Your task to perform on an android device: Search for sushi restaurants on Maps Image 0: 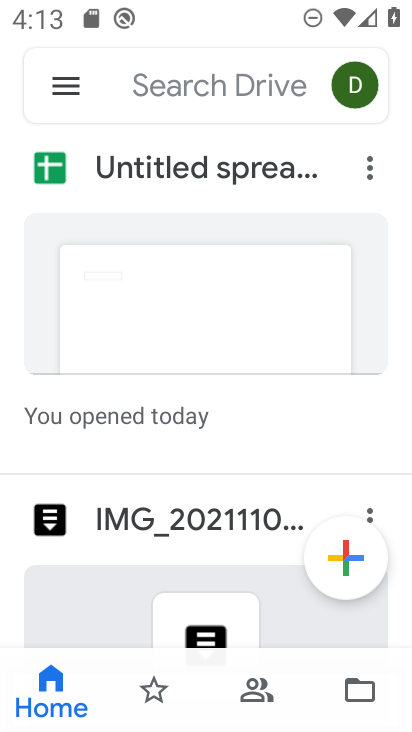
Step 0: press home button
Your task to perform on an android device: Search for sushi restaurants on Maps Image 1: 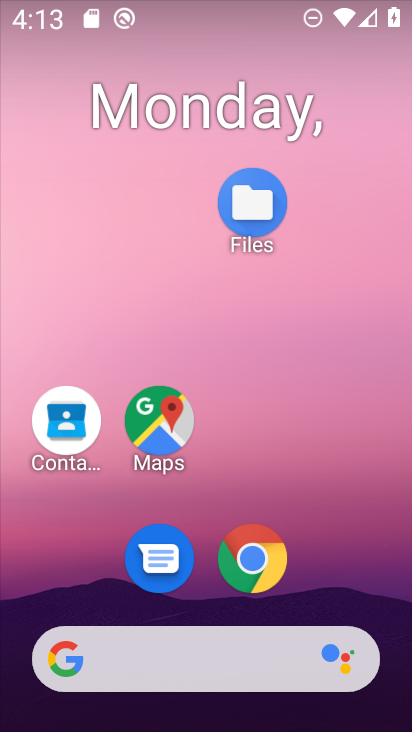
Step 1: drag from (266, 627) to (301, 117)
Your task to perform on an android device: Search for sushi restaurants on Maps Image 2: 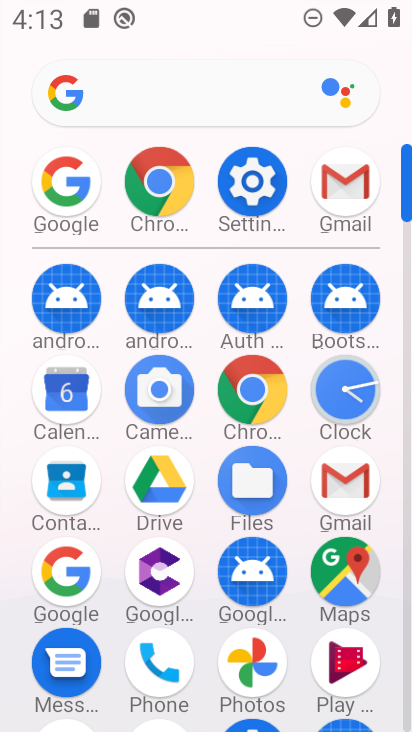
Step 2: click (364, 573)
Your task to perform on an android device: Search for sushi restaurants on Maps Image 3: 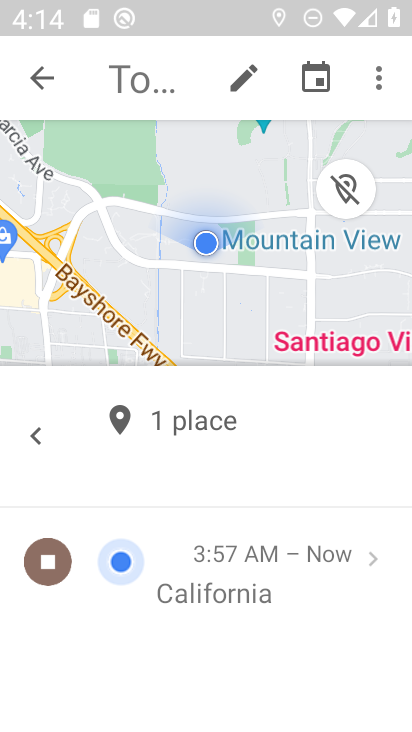
Step 3: click (51, 69)
Your task to perform on an android device: Search for sushi restaurants on Maps Image 4: 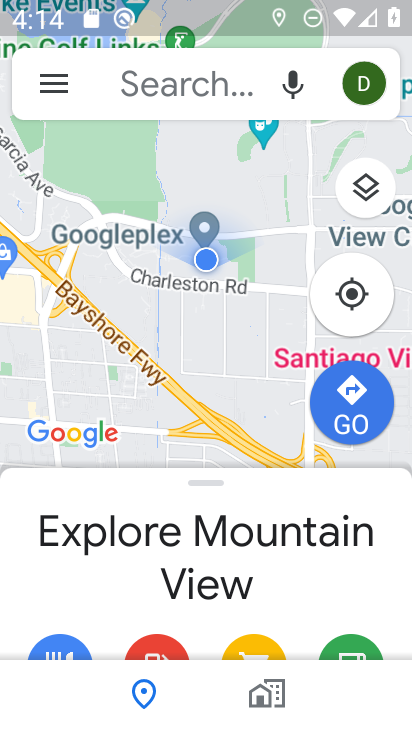
Step 4: click (220, 97)
Your task to perform on an android device: Search for sushi restaurants on Maps Image 5: 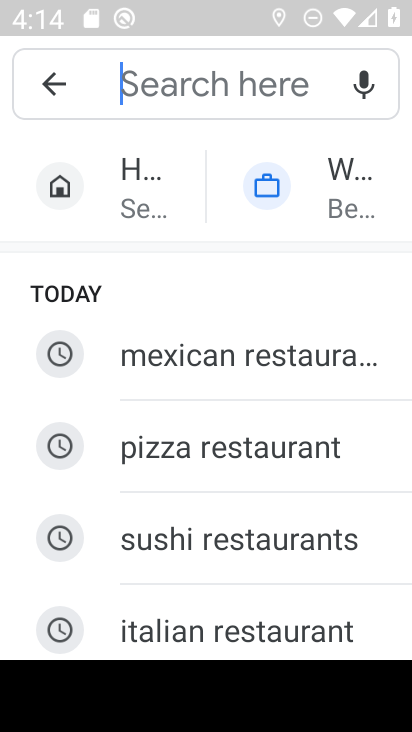
Step 5: click (202, 563)
Your task to perform on an android device: Search for sushi restaurants on Maps Image 6: 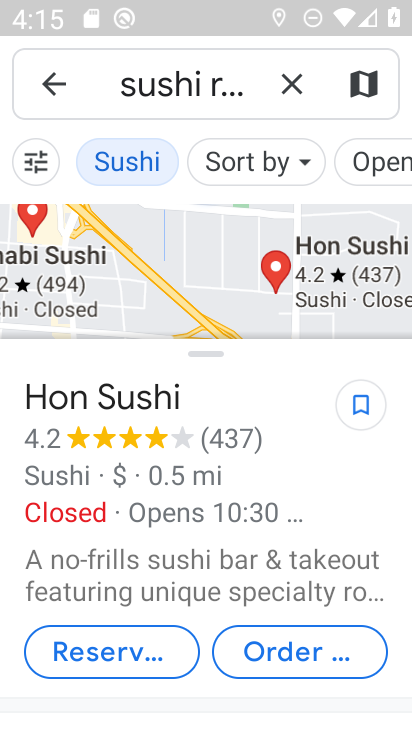
Step 6: task complete